Your task to perform on an android device: find which apps use the phone's location Image 0: 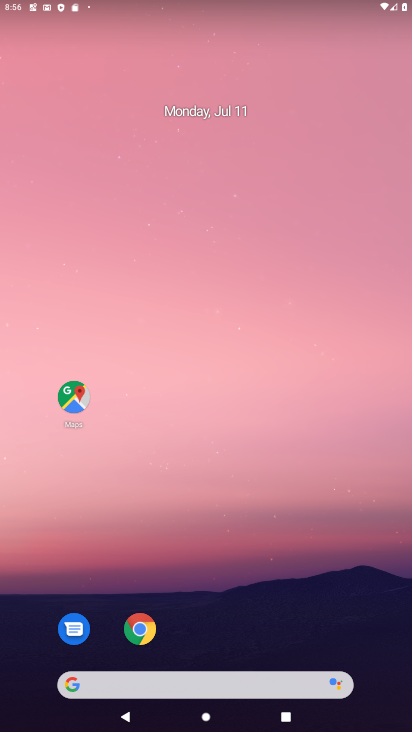
Step 0: drag from (311, 622) to (261, 59)
Your task to perform on an android device: find which apps use the phone's location Image 1: 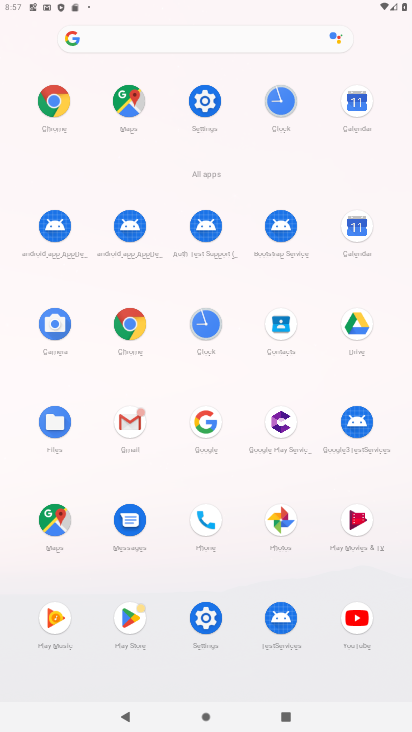
Step 1: click (199, 614)
Your task to perform on an android device: find which apps use the phone's location Image 2: 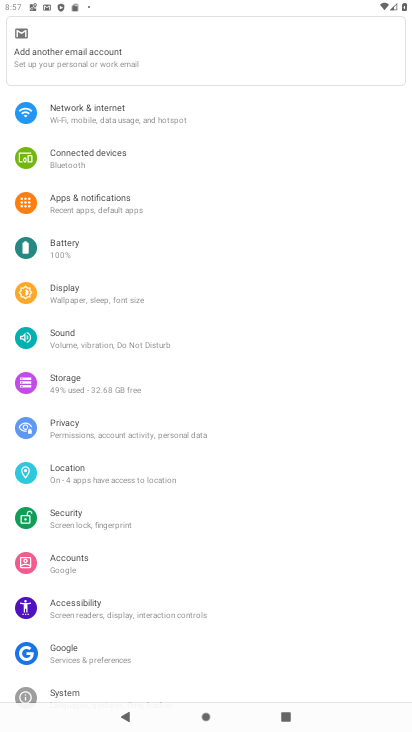
Step 2: click (90, 471)
Your task to perform on an android device: find which apps use the phone's location Image 3: 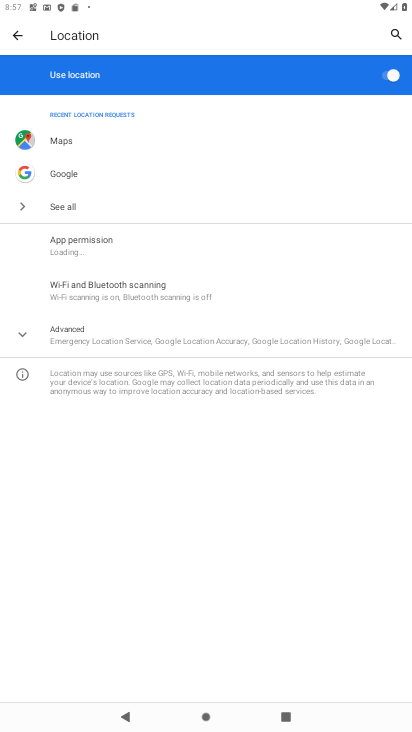
Step 3: click (90, 232)
Your task to perform on an android device: find which apps use the phone's location Image 4: 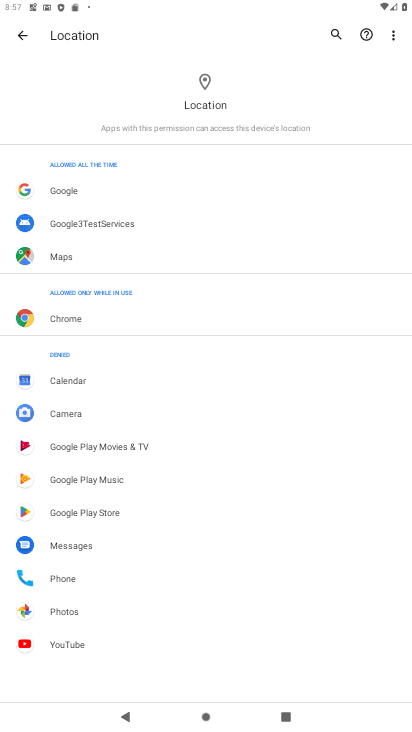
Step 4: press back button
Your task to perform on an android device: find which apps use the phone's location Image 5: 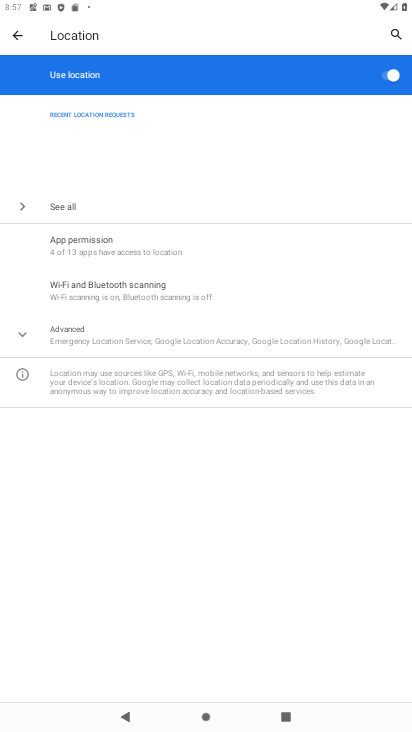
Step 5: press home button
Your task to perform on an android device: find which apps use the phone's location Image 6: 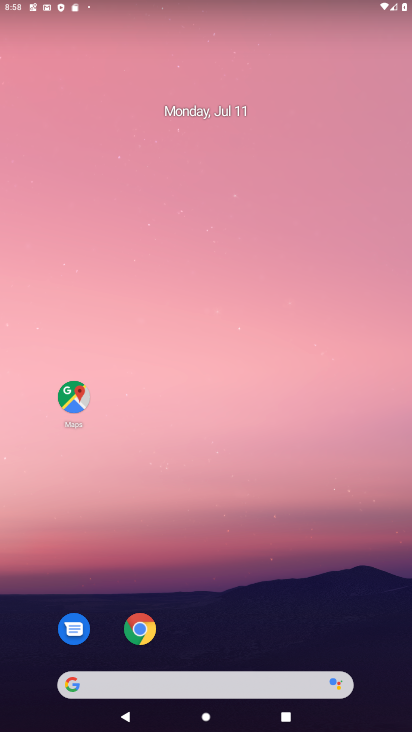
Step 6: drag from (238, 635) to (204, 32)
Your task to perform on an android device: find which apps use the phone's location Image 7: 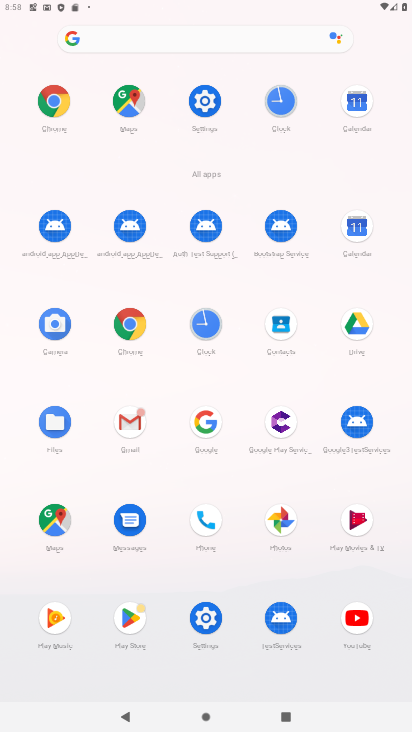
Step 7: click (212, 597)
Your task to perform on an android device: find which apps use the phone's location Image 8: 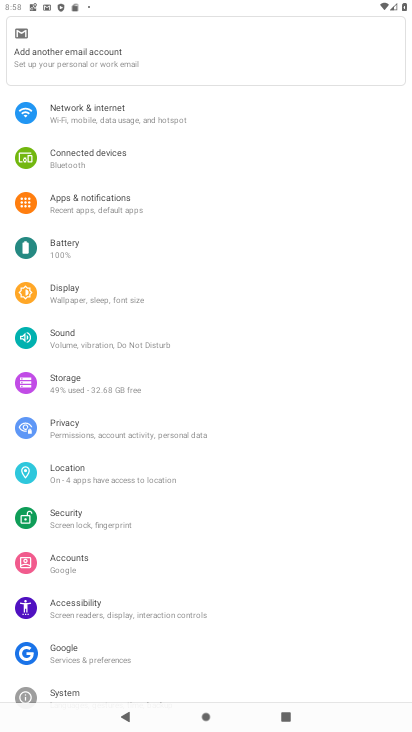
Step 8: click (93, 475)
Your task to perform on an android device: find which apps use the phone's location Image 9: 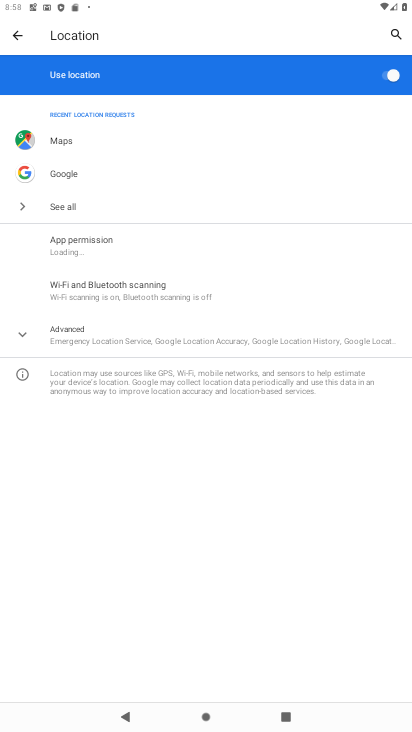
Step 9: click (68, 243)
Your task to perform on an android device: find which apps use the phone's location Image 10: 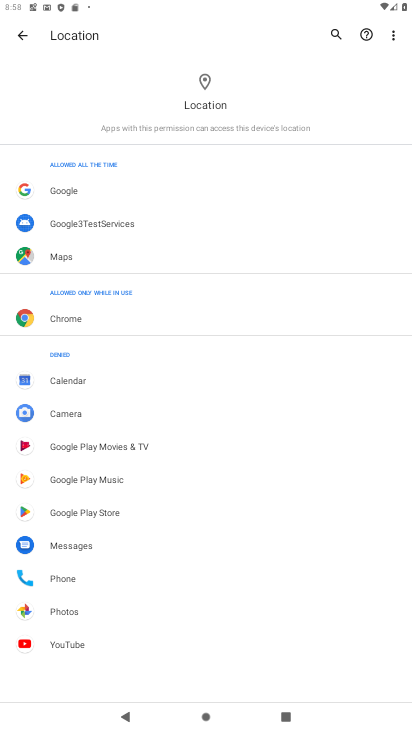
Step 10: task complete